Your task to perform on an android device: open a bookmark in the chrome app Image 0: 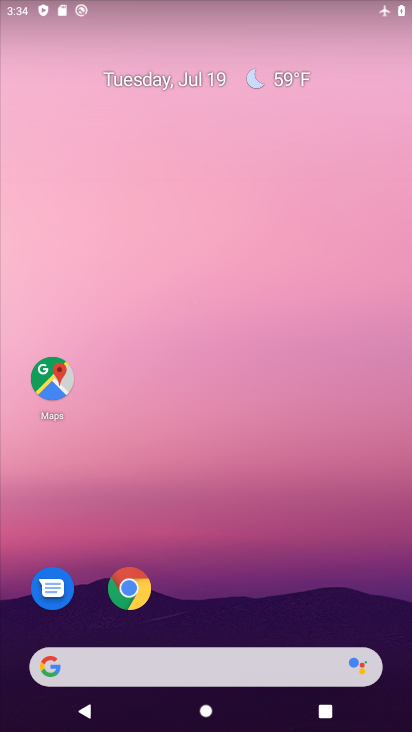
Step 0: press home button
Your task to perform on an android device: open a bookmark in the chrome app Image 1: 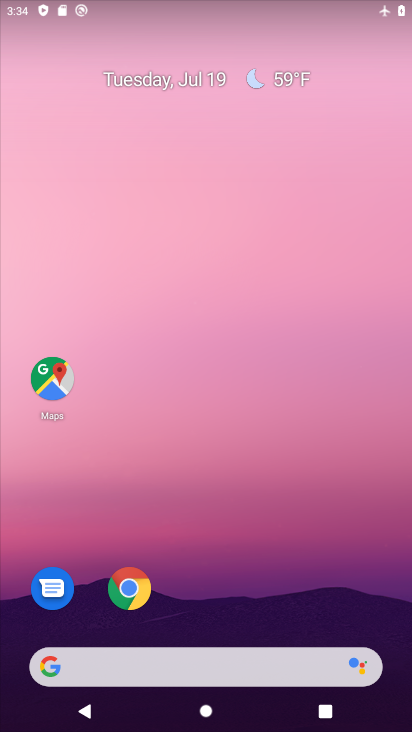
Step 1: drag from (218, 631) to (411, 152)
Your task to perform on an android device: open a bookmark in the chrome app Image 2: 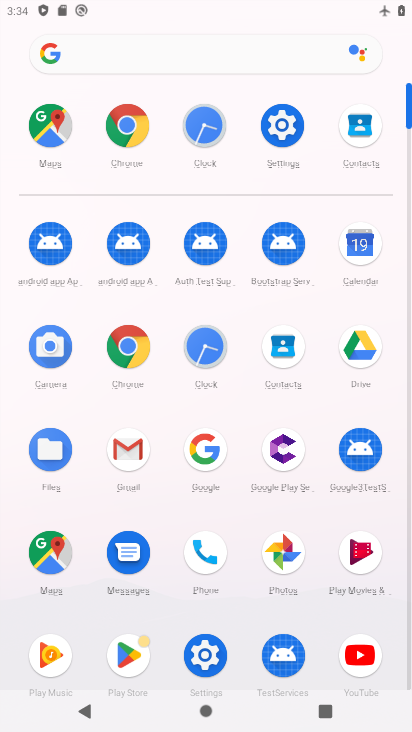
Step 2: click (131, 118)
Your task to perform on an android device: open a bookmark in the chrome app Image 3: 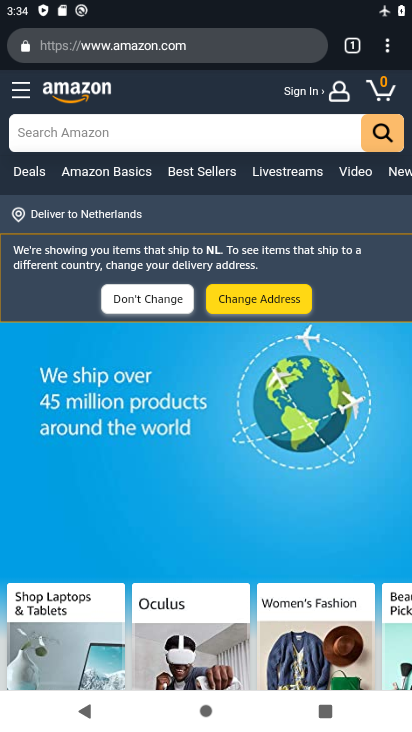
Step 3: drag from (384, 49) to (229, 172)
Your task to perform on an android device: open a bookmark in the chrome app Image 4: 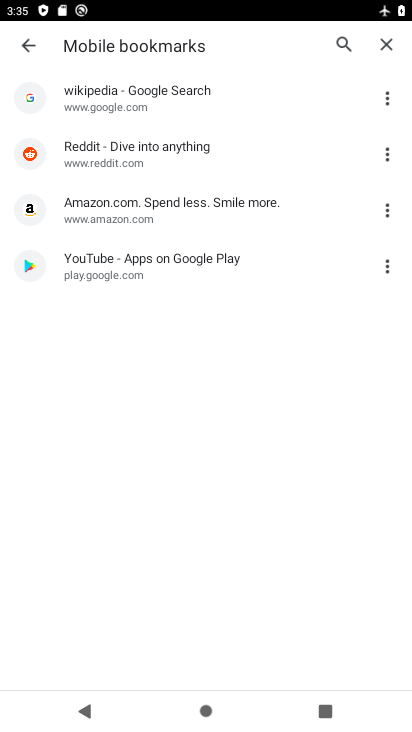
Step 4: click (97, 207)
Your task to perform on an android device: open a bookmark in the chrome app Image 5: 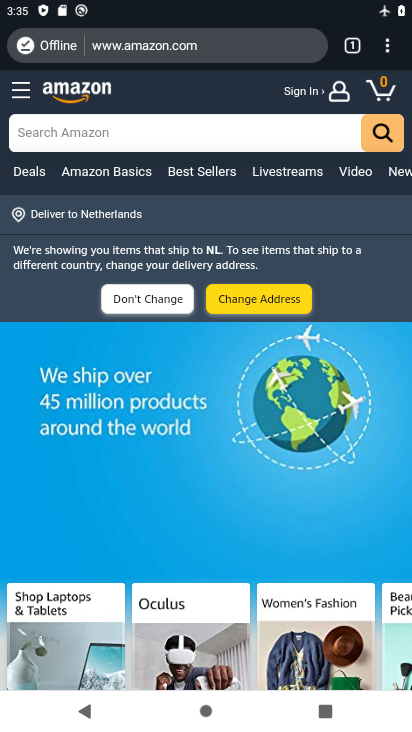
Step 5: task complete